Your task to perform on an android device: Empty the shopping cart on newegg. Image 0: 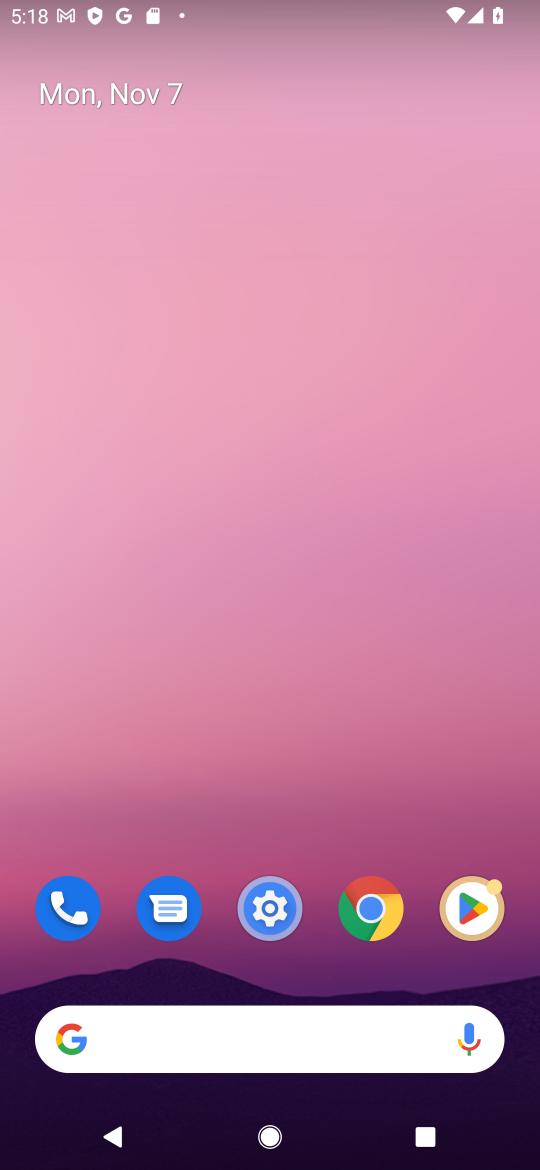
Step 0: click (304, 1018)
Your task to perform on an android device: Empty the shopping cart on newegg. Image 1: 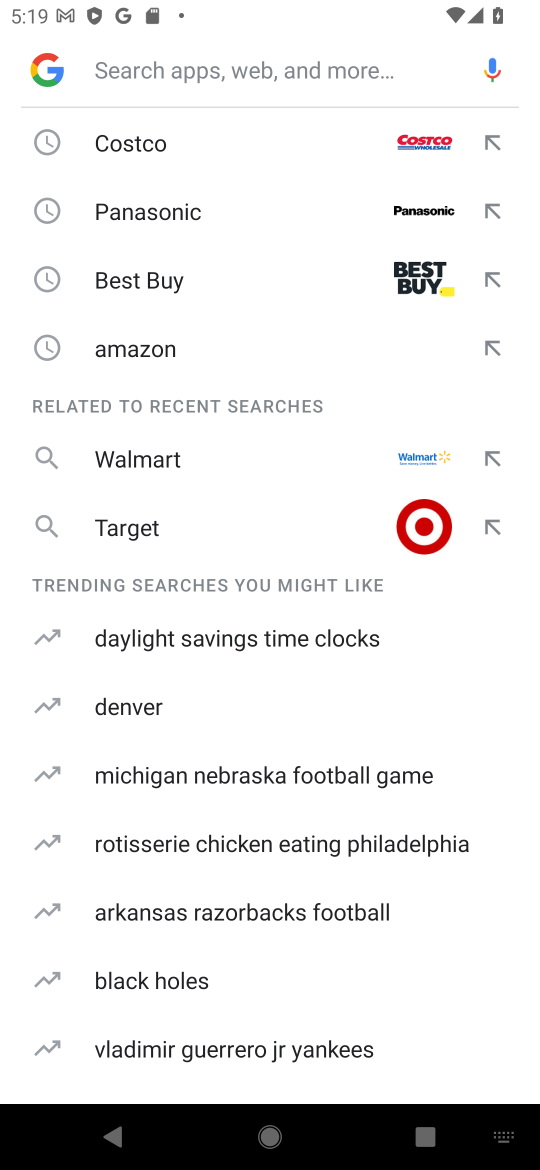
Step 1: click (232, 152)
Your task to perform on an android device: Empty the shopping cart on newegg. Image 2: 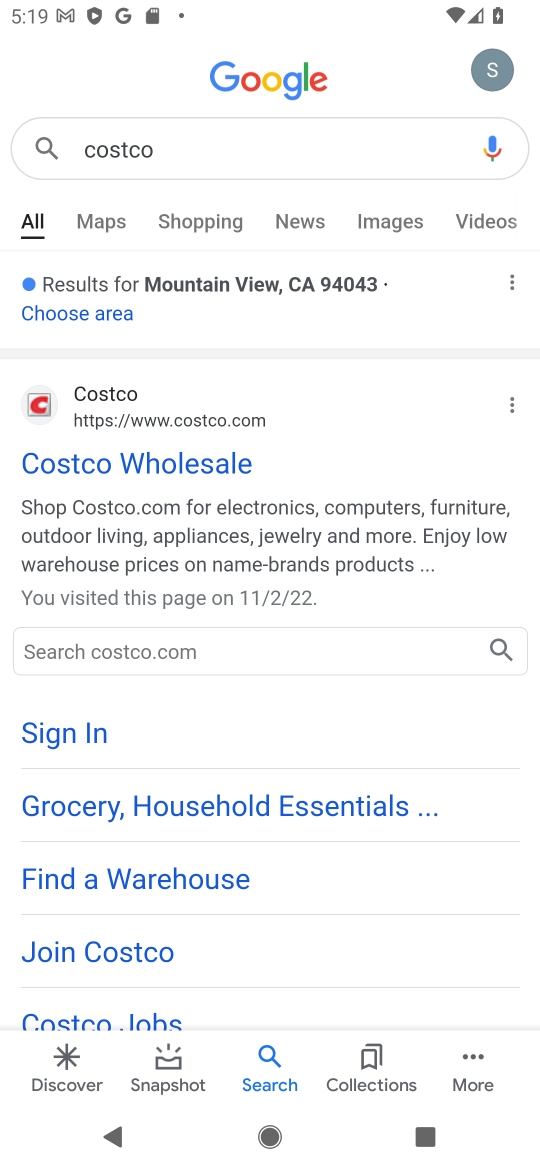
Step 2: click (225, 448)
Your task to perform on an android device: Empty the shopping cart on newegg. Image 3: 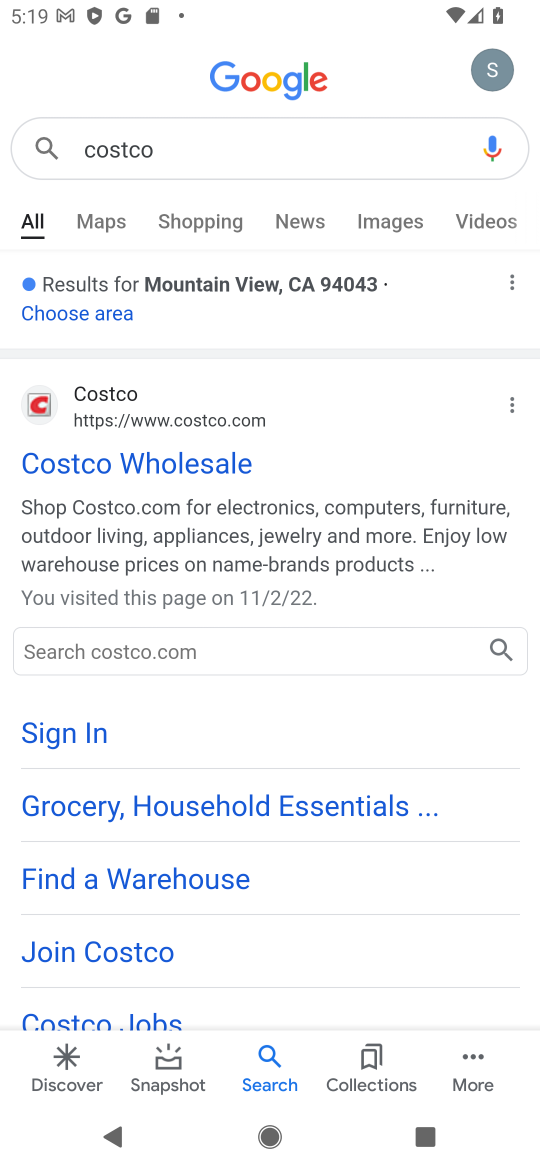
Step 3: task complete